Your task to perform on an android device: Go to accessibility settings Image 0: 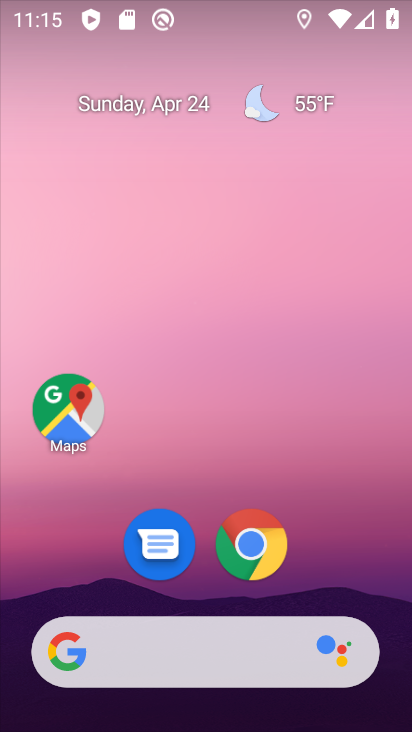
Step 0: drag from (327, 558) to (272, 201)
Your task to perform on an android device: Go to accessibility settings Image 1: 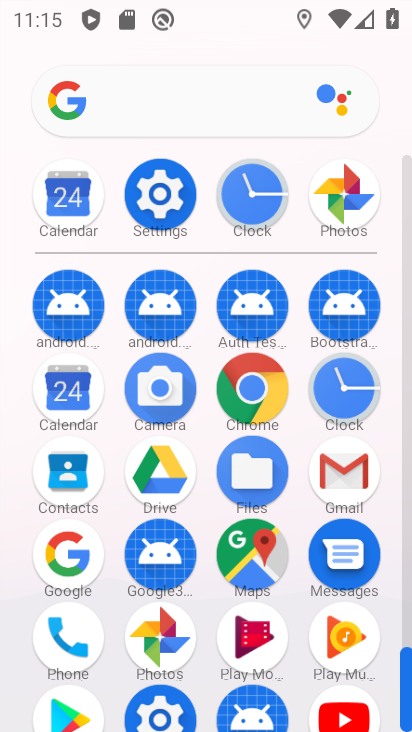
Step 1: click (159, 200)
Your task to perform on an android device: Go to accessibility settings Image 2: 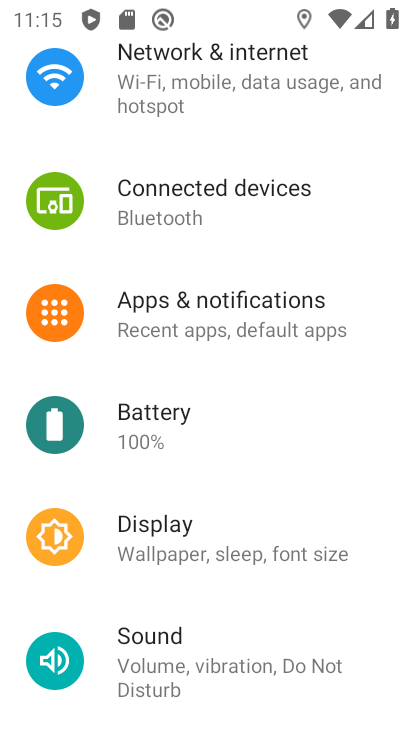
Step 2: drag from (316, 614) to (309, 163)
Your task to perform on an android device: Go to accessibility settings Image 3: 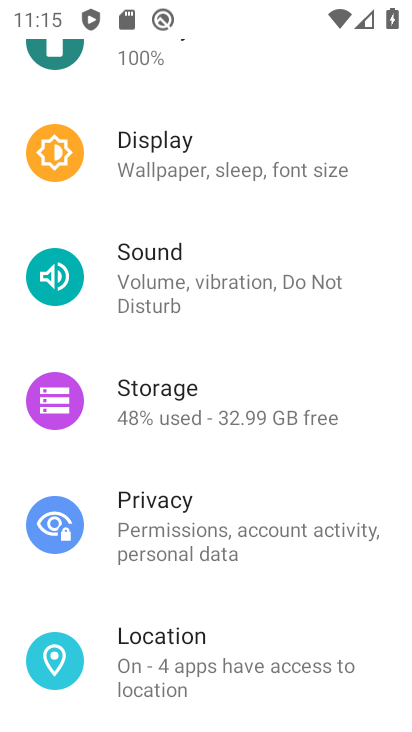
Step 3: drag from (258, 618) to (291, 162)
Your task to perform on an android device: Go to accessibility settings Image 4: 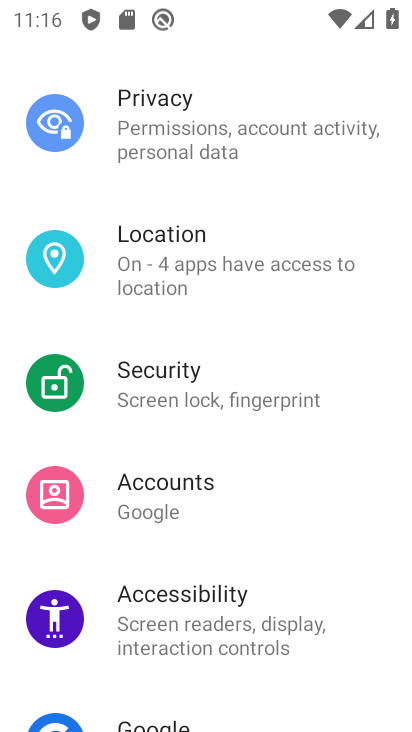
Step 4: click (212, 621)
Your task to perform on an android device: Go to accessibility settings Image 5: 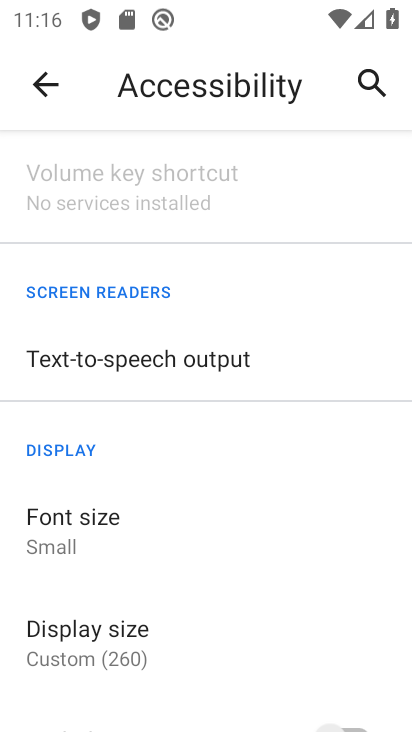
Step 5: task complete